Your task to perform on an android device: Toggle the flashlight Image 0: 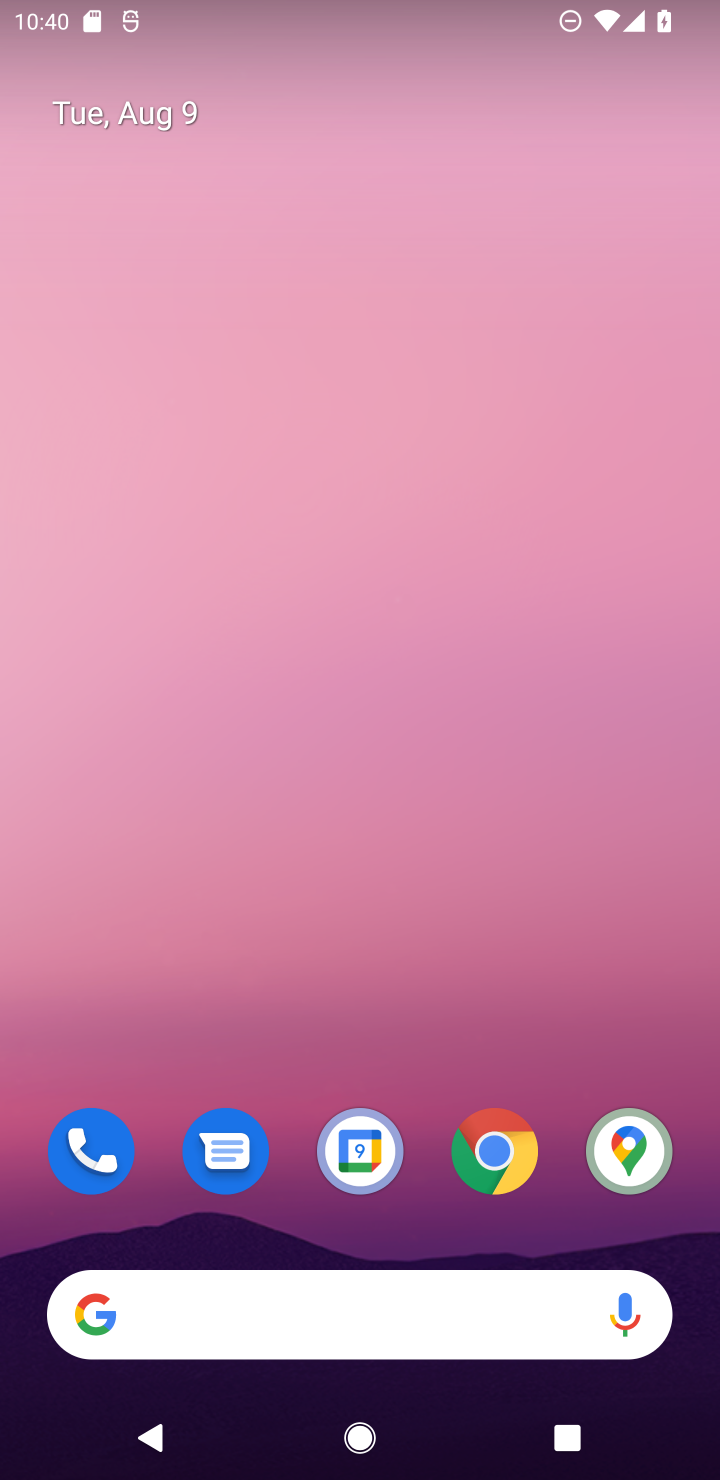
Step 0: drag from (439, 26) to (415, 906)
Your task to perform on an android device: Toggle the flashlight Image 1: 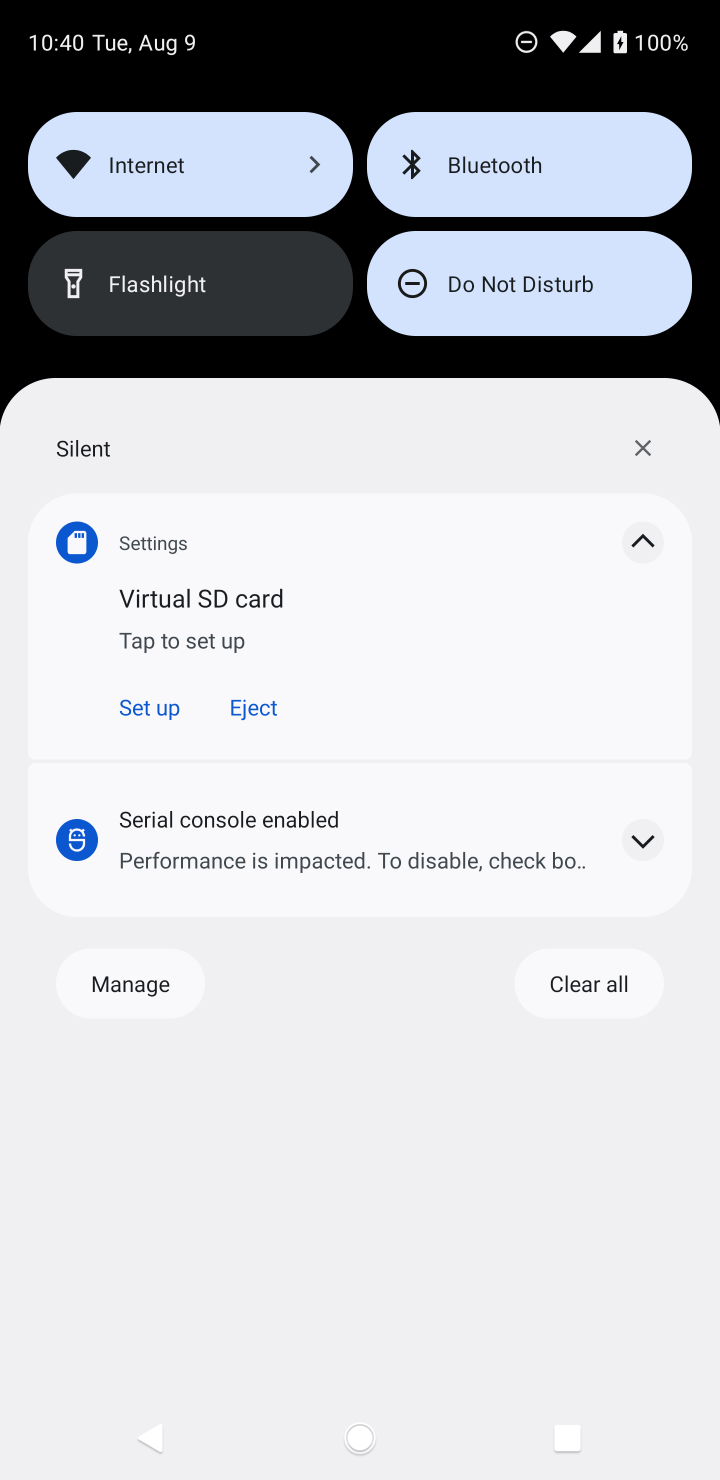
Step 1: click (194, 271)
Your task to perform on an android device: Toggle the flashlight Image 2: 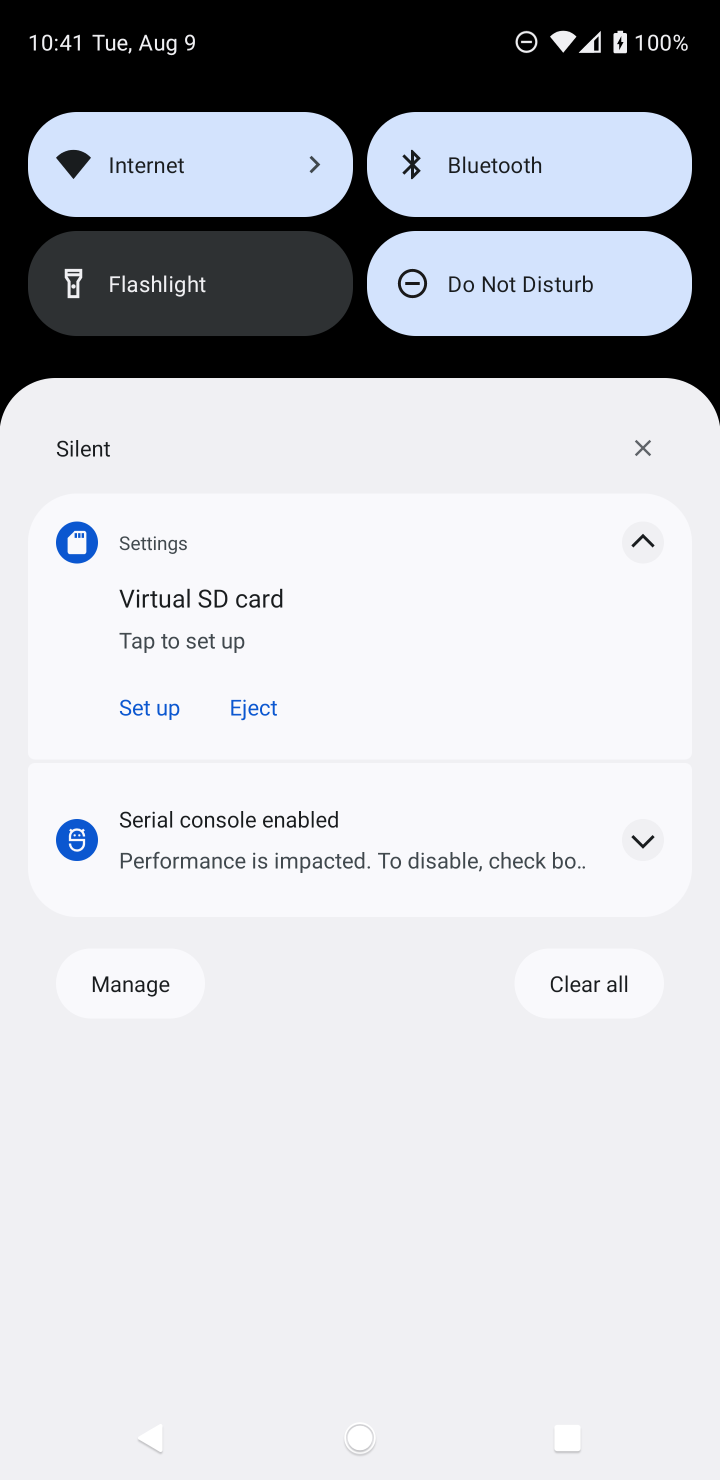
Step 2: task complete